Your task to perform on an android device: When is my next meeting? Image 0: 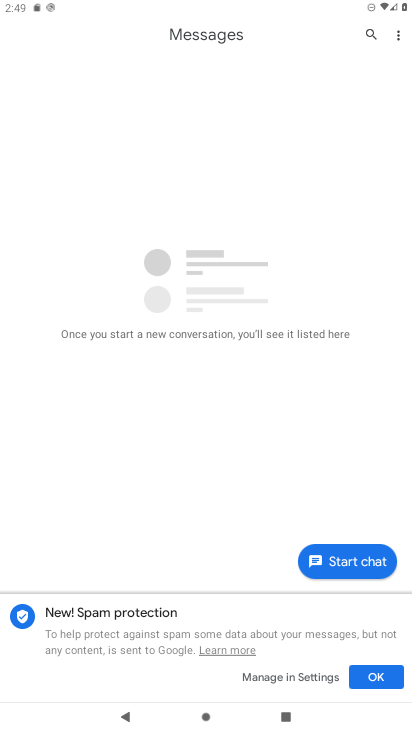
Step 0: press home button
Your task to perform on an android device: When is my next meeting? Image 1: 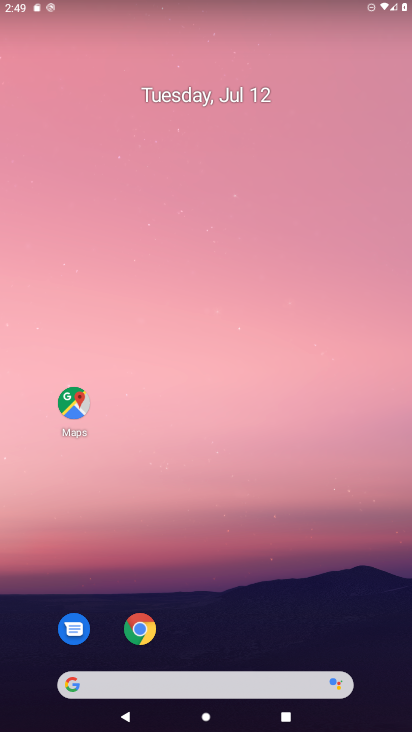
Step 1: drag from (168, 686) to (359, 123)
Your task to perform on an android device: When is my next meeting? Image 2: 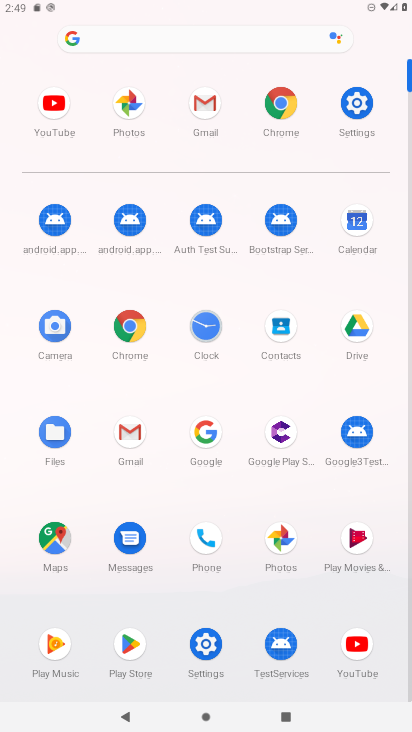
Step 2: click (360, 219)
Your task to perform on an android device: When is my next meeting? Image 3: 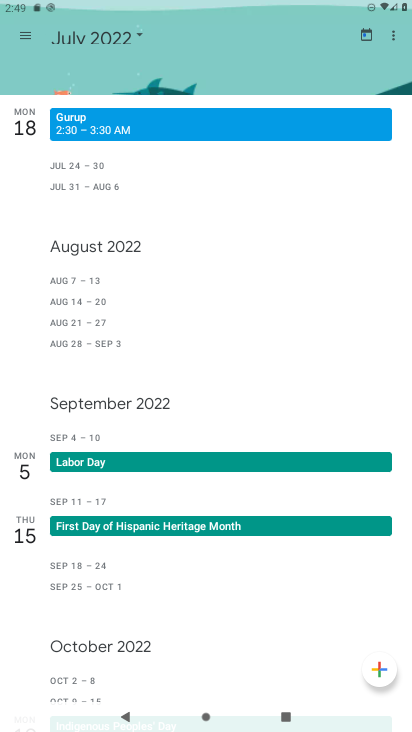
Step 3: click (369, 41)
Your task to perform on an android device: When is my next meeting? Image 4: 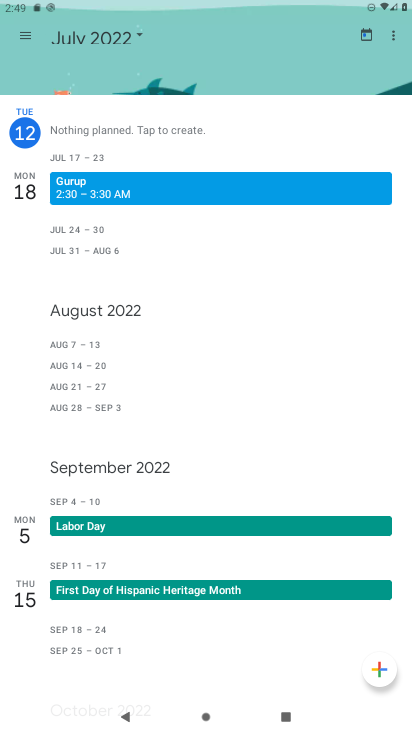
Step 4: click (141, 29)
Your task to perform on an android device: When is my next meeting? Image 5: 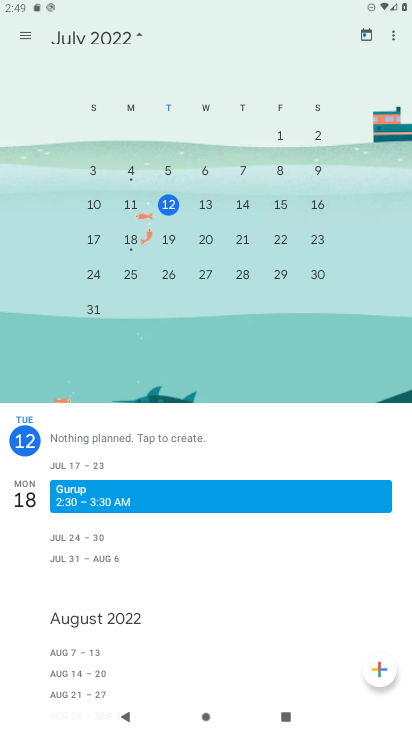
Step 5: click (135, 241)
Your task to perform on an android device: When is my next meeting? Image 6: 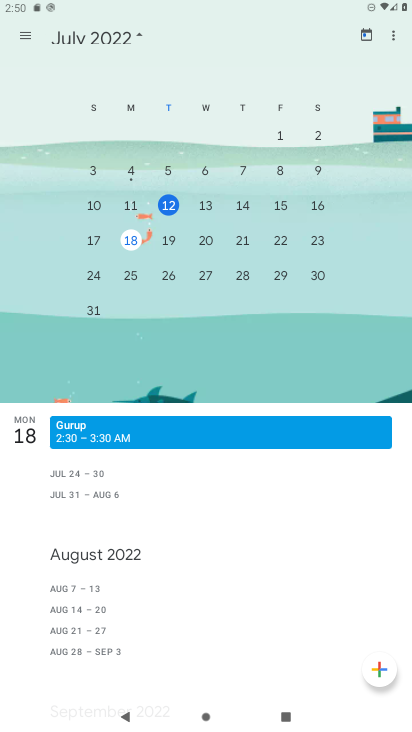
Step 6: click (19, 32)
Your task to perform on an android device: When is my next meeting? Image 7: 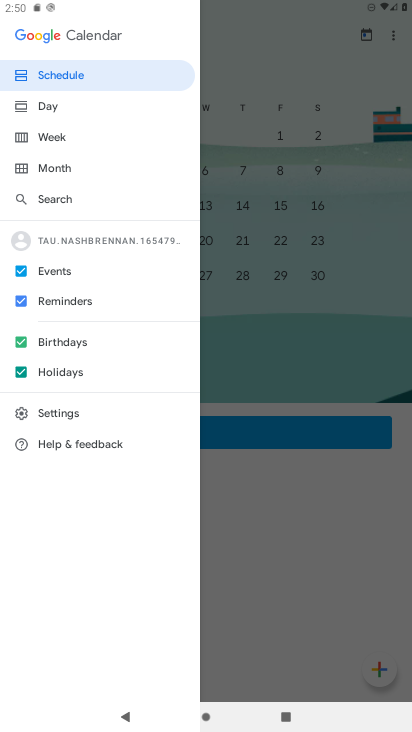
Step 7: click (51, 139)
Your task to perform on an android device: When is my next meeting? Image 8: 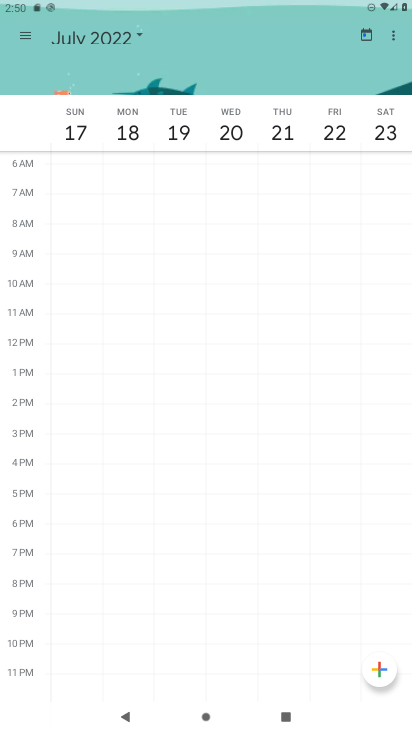
Step 8: task complete